Your task to perform on an android device: open the mobile data screen to see how much data has been used Image 0: 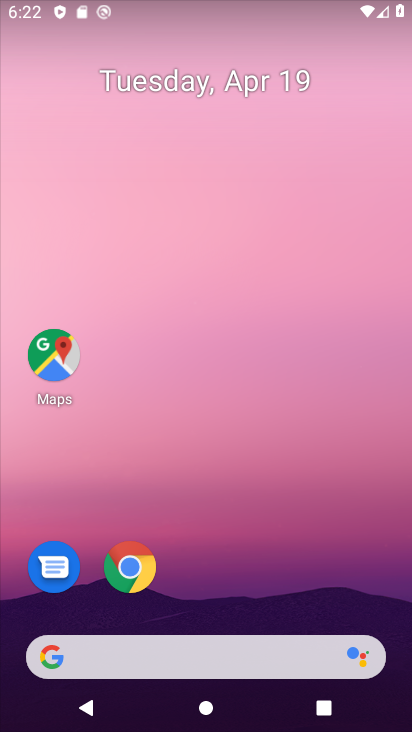
Step 0: drag from (338, 594) to (363, 36)
Your task to perform on an android device: open the mobile data screen to see how much data has been used Image 1: 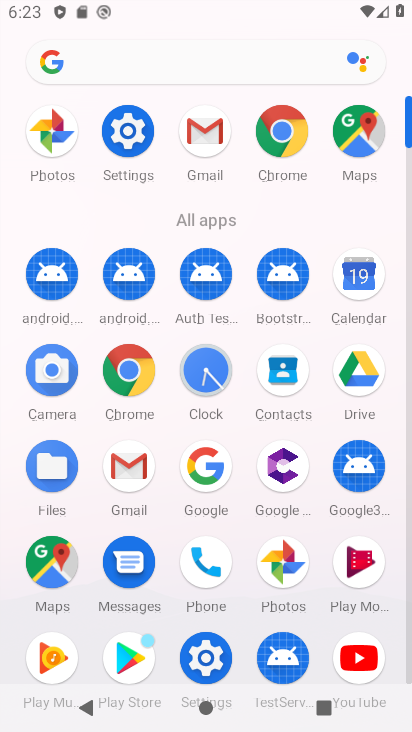
Step 1: drag from (349, 10) to (303, 597)
Your task to perform on an android device: open the mobile data screen to see how much data has been used Image 2: 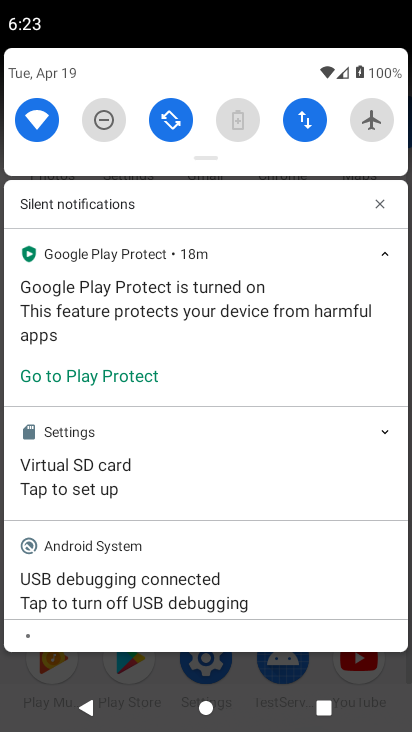
Step 2: click (300, 120)
Your task to perform on an android device: open the mobile data screen to see how much data has been used Image 3: 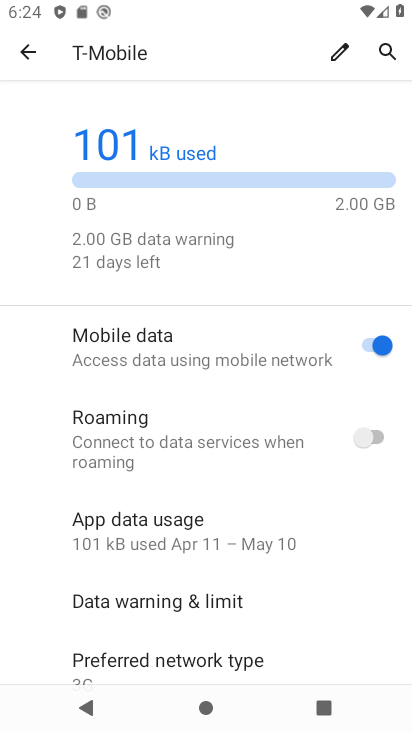
Step 3: task complete